Your task to perform on an android device: Open Google Maps Image 0: 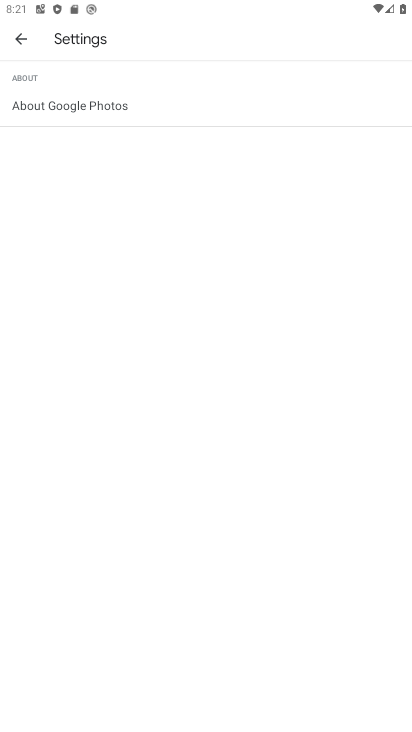
Step 0: press home button
Your task to perform on an android device: Open Google Maps Image 1: 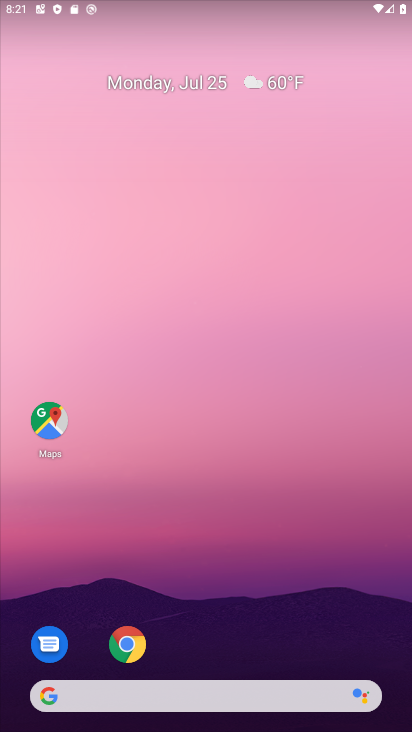
Step 1: click (49, 425)
Your task to perform on an android device: Open Google Maps Image 2: 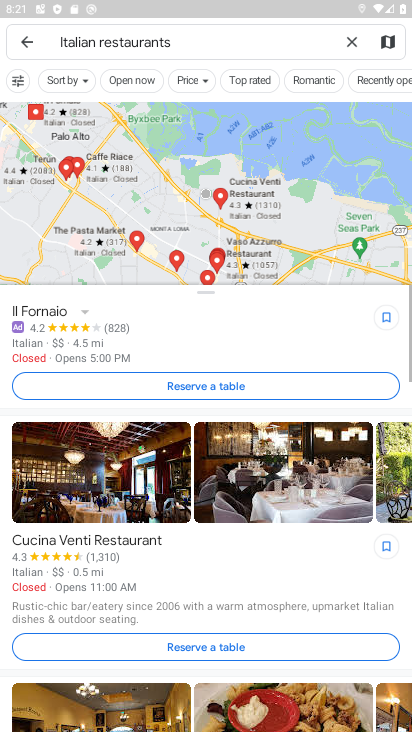
Step 2: task complete